Your task to perform on an android device: turn off picture-in-picture Image 0: 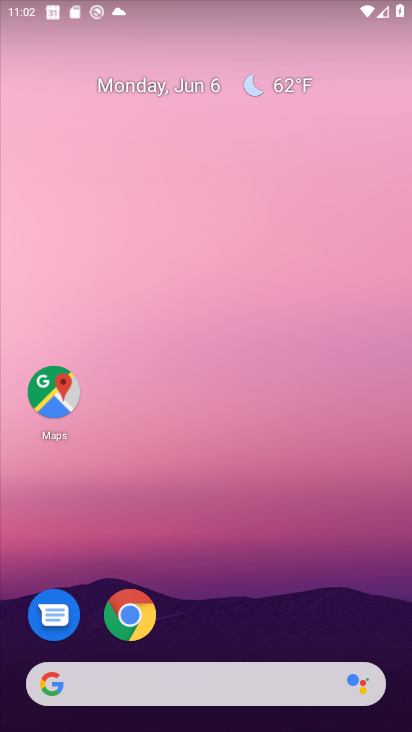
Step 0: drag from (239, 722) to (232, 116)
Your task to perform on an android device: turn off picture-in-picture Image 1: 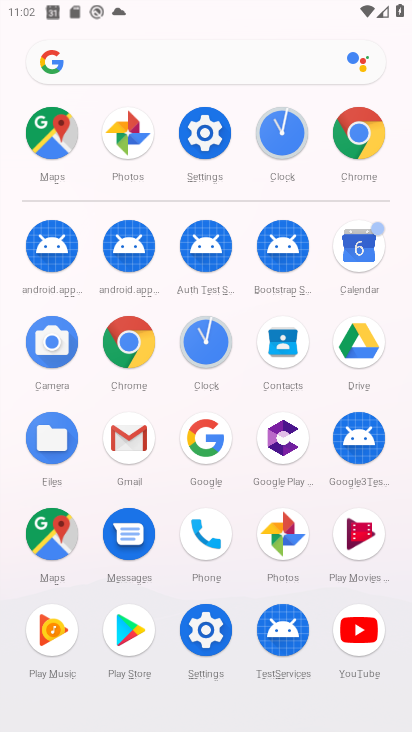
Step 1: drag from (353, 134) to (305, 304)
Your task to perform on an android device: turn off picture-in-picture Image 2: 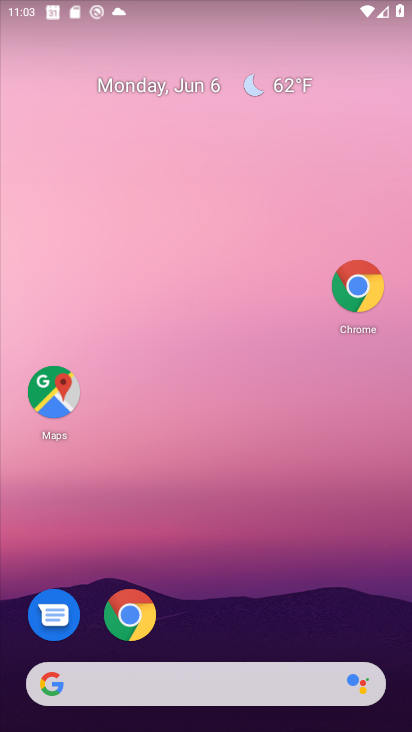
Step 2: drag from (267, 580) to (212, 81)
Your task to perform on an android device: turn off picture-in-picture Image 3: 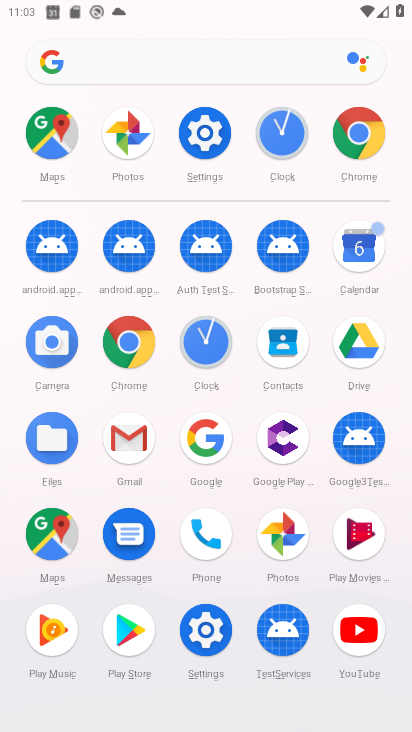
Step 3: click (133, 349)
Your task to perform on an android device: turn off picture-in-picture Image 4: 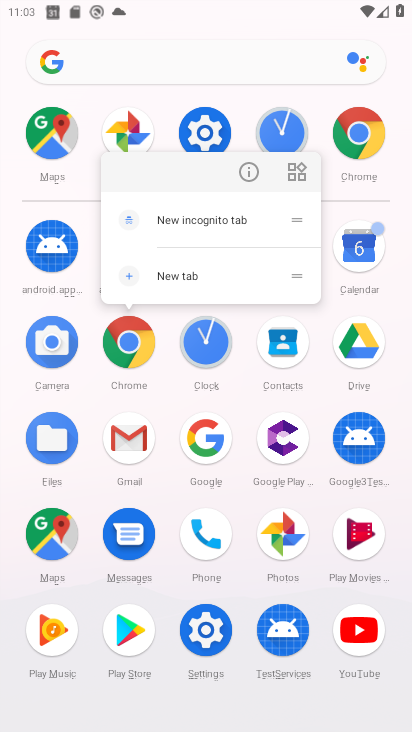
Step 4: click (245, 176)
Your task to perform on an android device: turn off picture-in-picture Image 5: 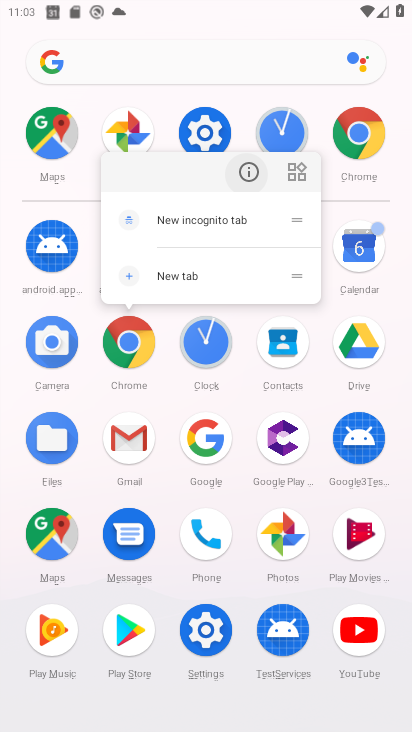
Step 5: click (246, 175)
Your task to perform on an android device: turn off picture-in-picture Image 6: 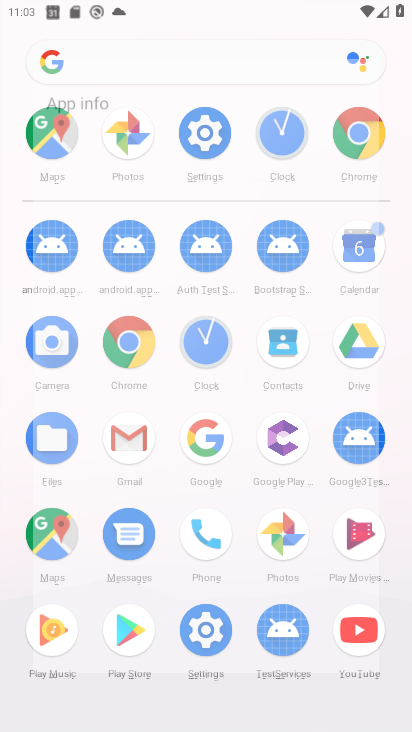
Step 6: click (246, 175)
Your task to perform on an android device: turn off picture-in-picture Image 7: 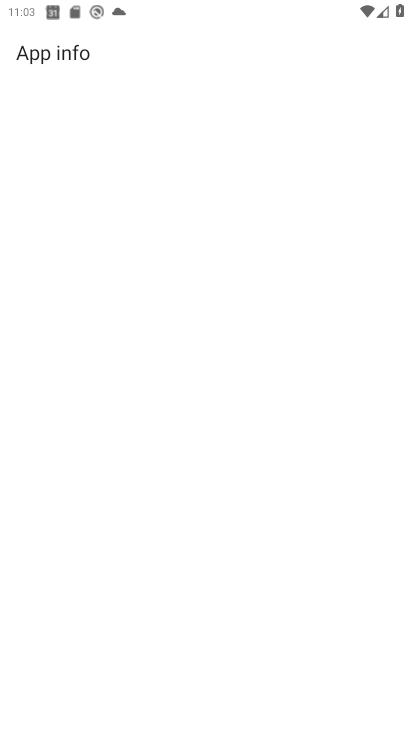
Step 7: click (250, 171)
Your task to perform on an android device: turn off picture-in-picture Image 8: 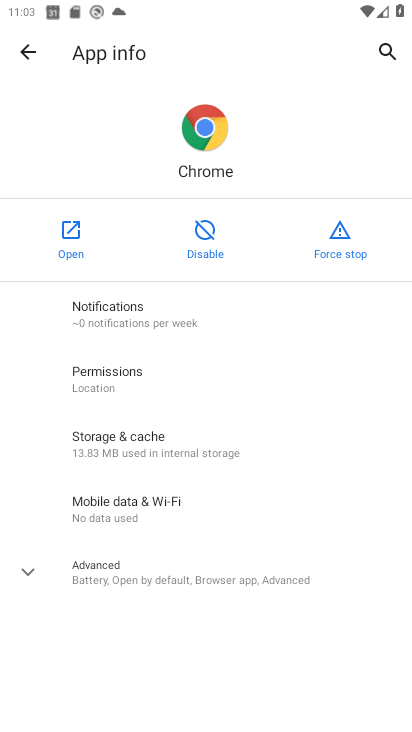
Step 8: click (76, 565)
Your task to perform on an android device: turn off picture-in-picture Image 9: 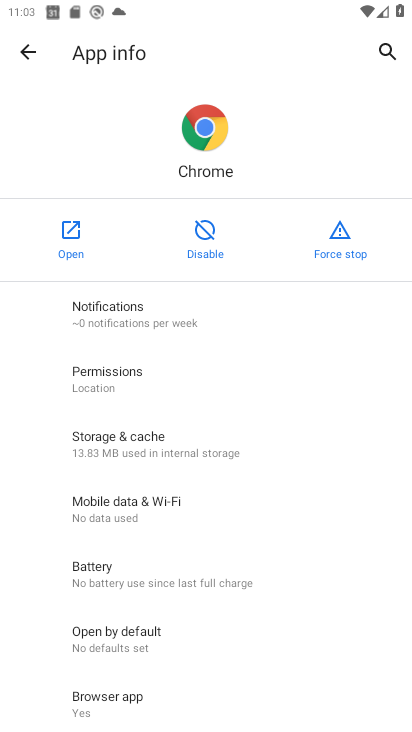
Step 9: drag from (192, 603) to (196, 262)
Your task to perform on an android device: turn off picture-in-picture Image 10: 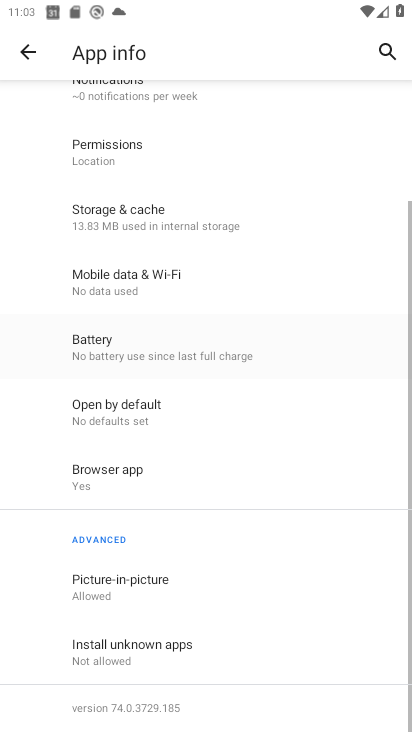
Step 10: drag from (221, 503) to (207, 247)
Your task to perform on an android device: turn off picture-in-picture Image 11: 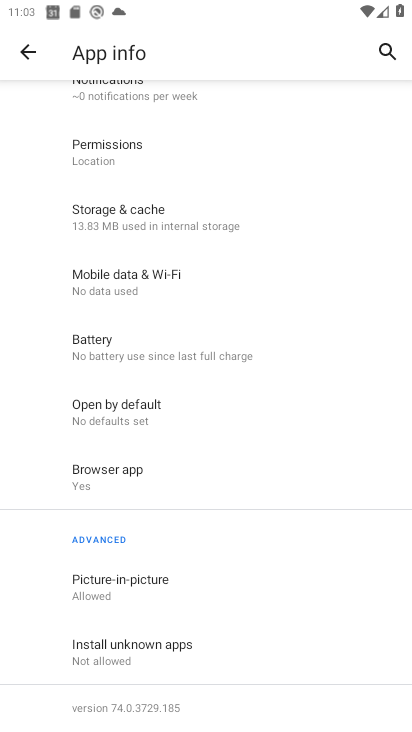
Step 11: click (102, 585)
Your task to perform on an android device: turn off picture-in-picture Image 12: 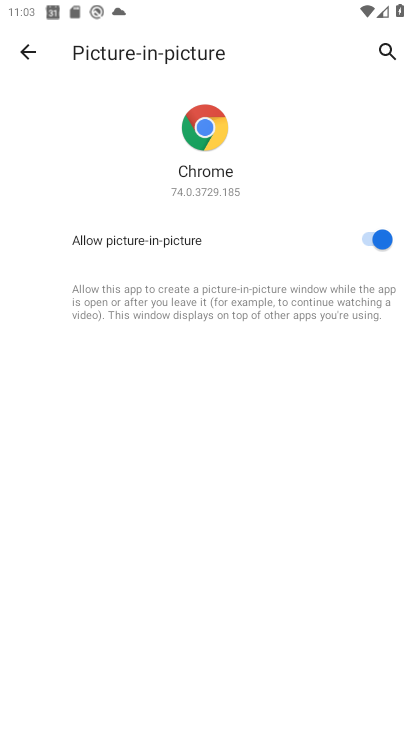
Step 12: click (378, 235)
Your task to perform on an android device: turn off picture-in-picture Image 13: 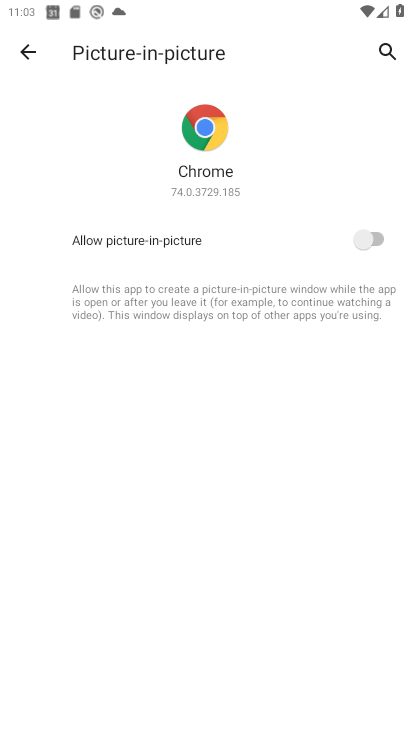
Step 13: task complete